Your task to perform on an android device: Open wifi settings Image 0: 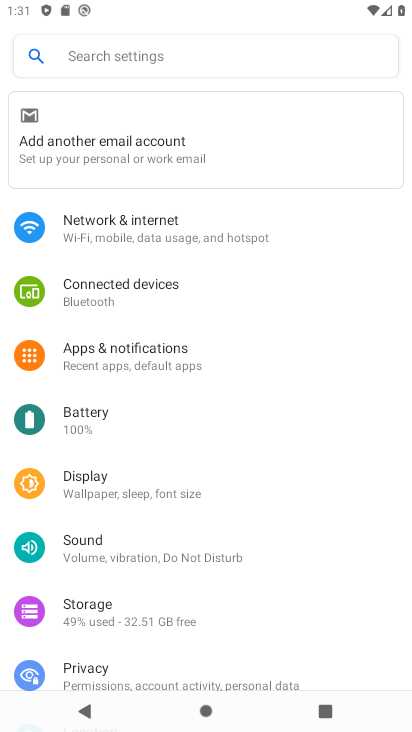
Step 0: click (226, 248)
Your task to perform on an android device: Open wifi settings Image 1: 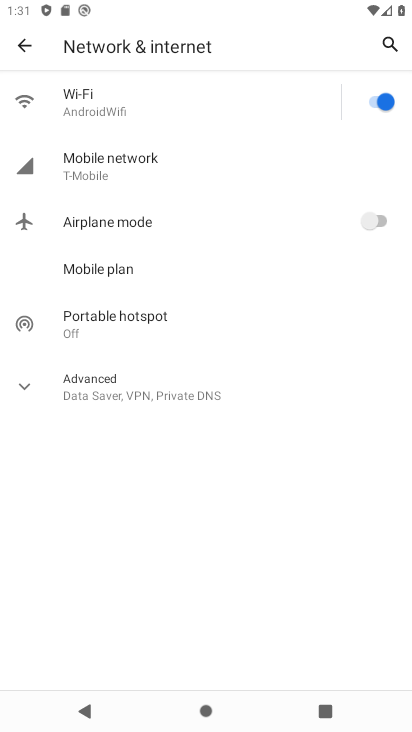
Step 1: click (106, 96)
Your task to perform on an android device: Open wifi settings Image 2: 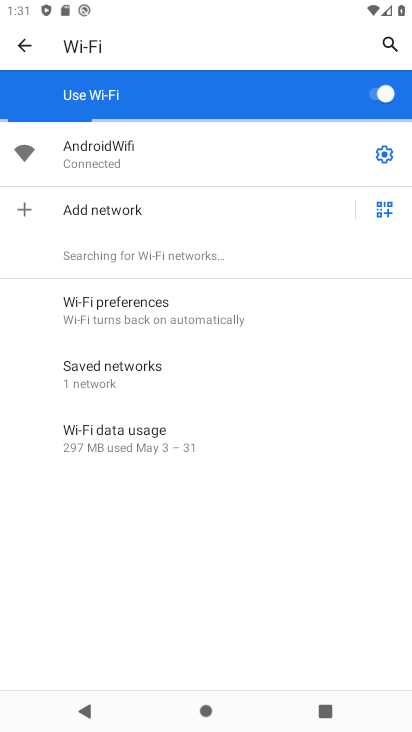
Step 2: task complete